Your task to perform on an android device: Go to battery settings Image 0: 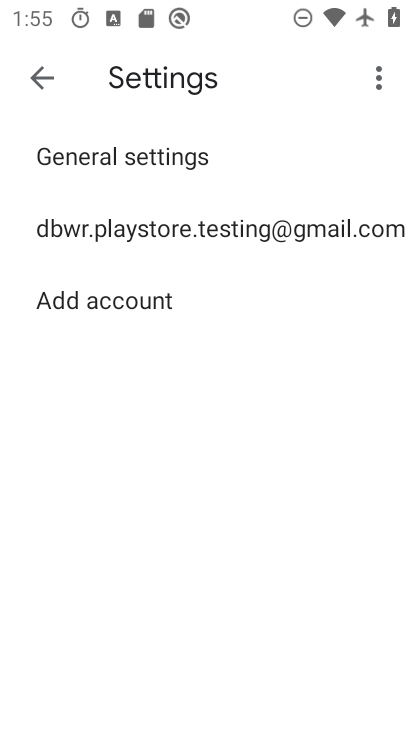
Step 0: press home button
Your task to perform on an android device: Go to battery settings Image 1: 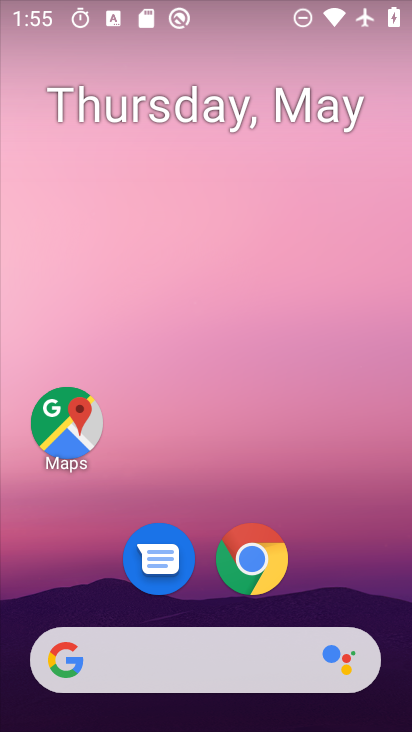
Step 1: drag from (219, 668) to (298, 3)
Your task to perform on an android device: Go to battery settings Image 2: 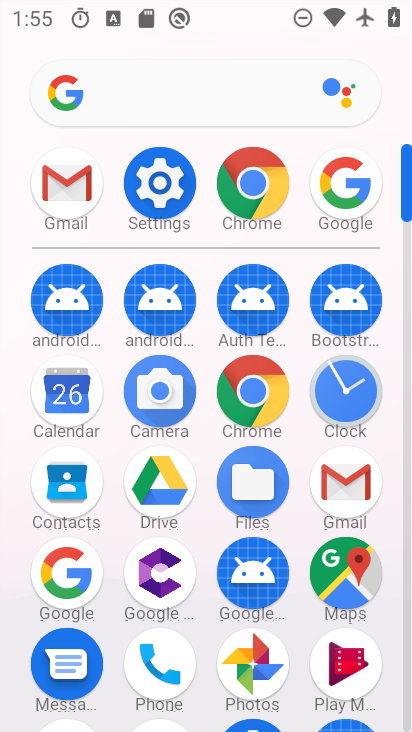
Step 2: click (164, 182)
Your task to perform on an android device: Go to battery settings Image 3: 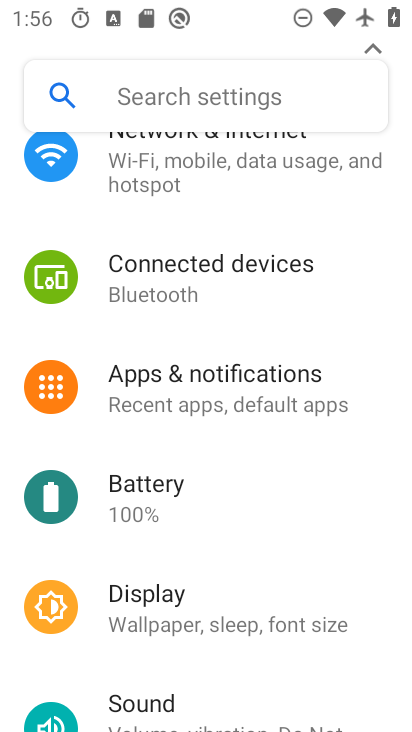
Step 3: click (192, 513)
Your task to perform on an android device: Go to battery settings Image 4: 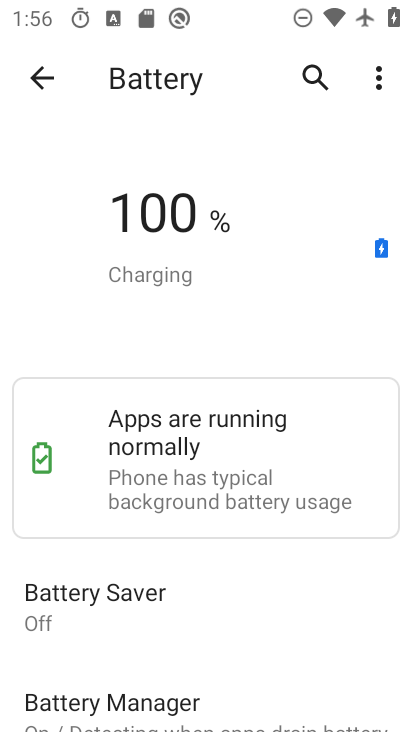
Step 4: task complete